Your task to perform on an android device: Open the phone app and click the voicemail tab. Image 0: 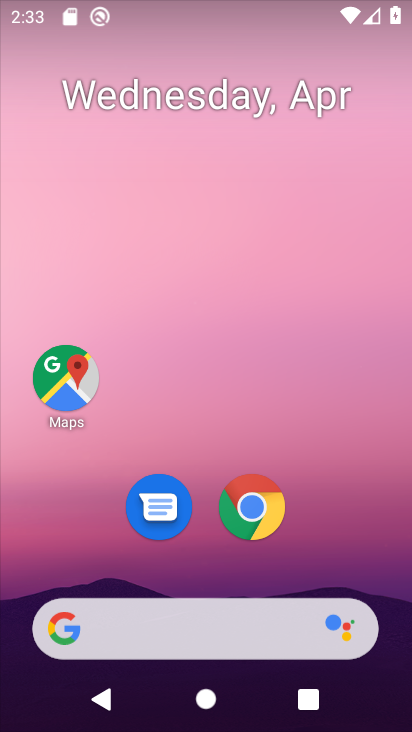
Step 0: drag from (253, 633) to (401, 22)
Your task to perform on an android device: Open the phone app and click the voicemail tab. Image 1: 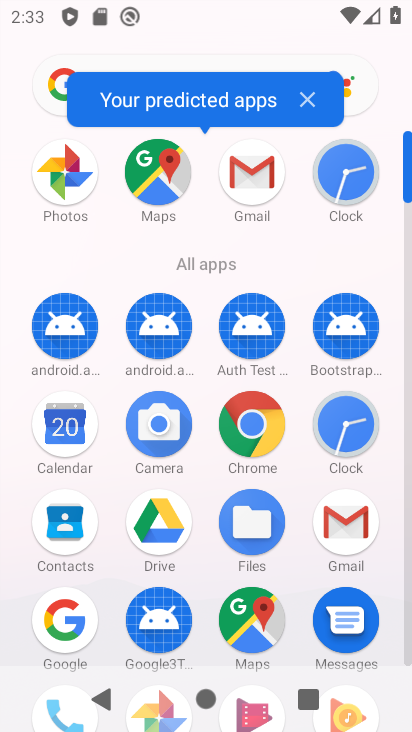
Step 1: drag from (196, 572) to (206, 235)
Your task to perform on an android device: Open the phone app and click the voicemail tab. Image 2: 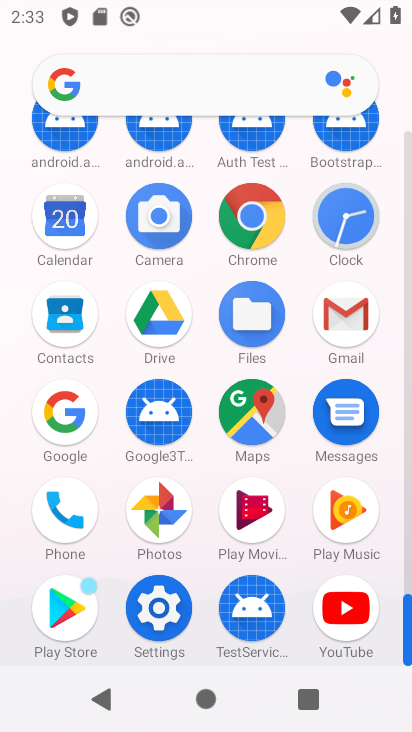
Step 2: click (53, 506)
Your task to perform on an android device: Open the phone app and click the voicemail tab. Image 3: 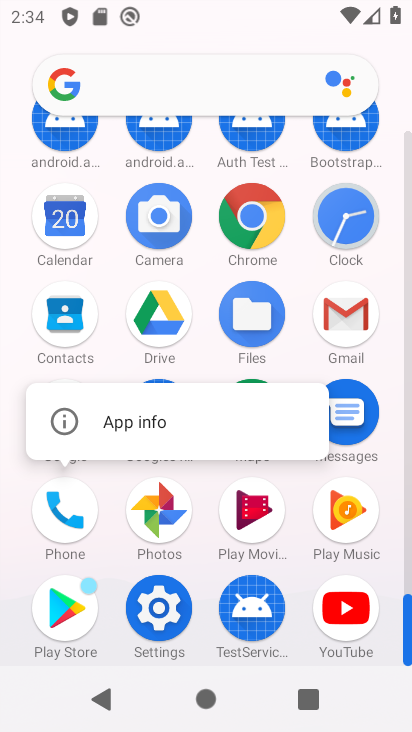
Step 3: click (53, 506)
Your task to perform on an android device: Open the phone app and click the voicemail tab. Image 4: 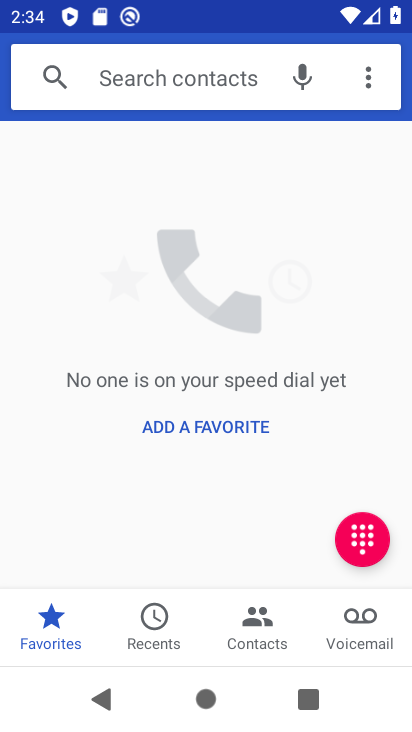
Step 4: click (353, 626)
Your task to perform on an android device: Open the phone app and click the voicemail tab. Image 5: 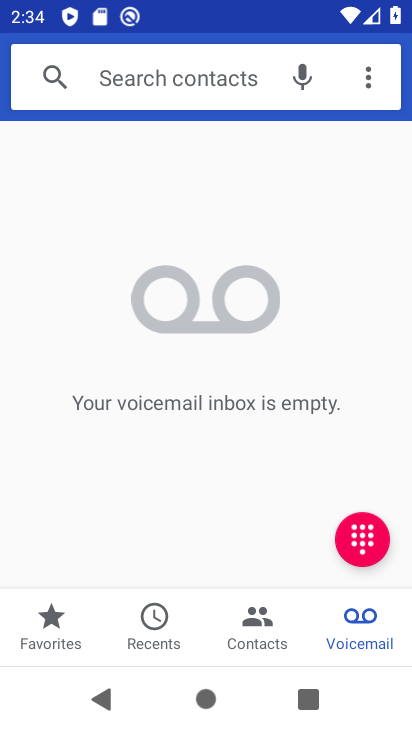
Step 5: task complete